Your task to perform on an android device: Show me the alarms in the clock app Image 0: 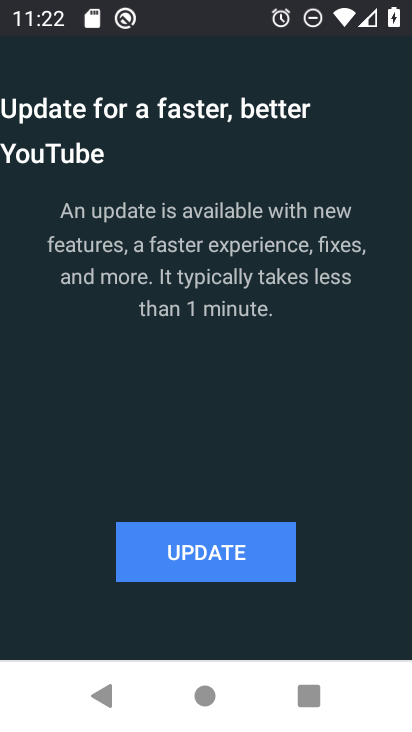
Step 0: press home button
Your task to perform on an android device: Show me the alarms in the clock app Image 1: 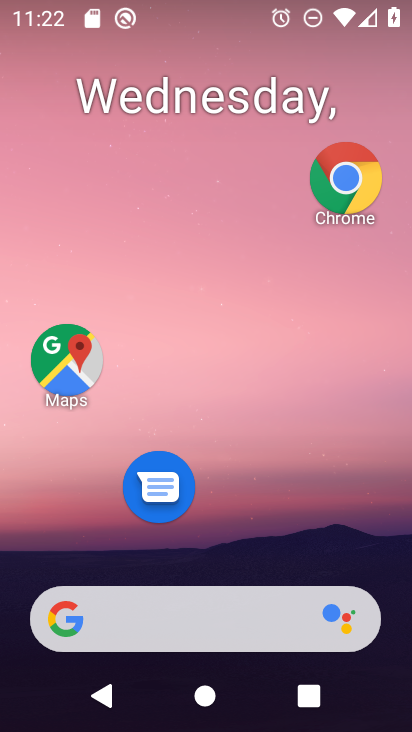
Step 1: drag from (240, 518) to (297, 150)
Your task to perform on an android device: Show me the alarms in the clock app Image 2: 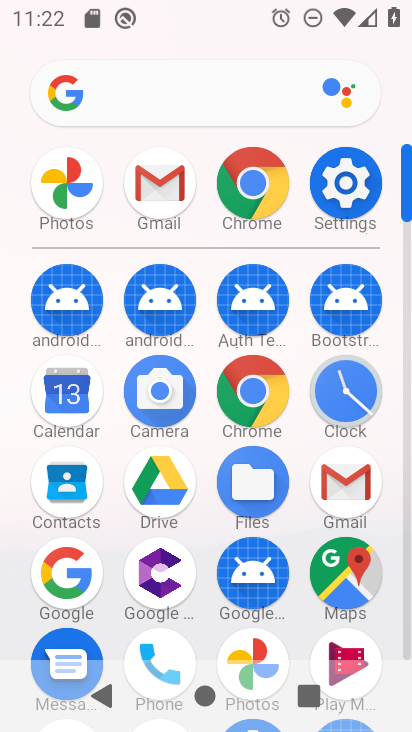
Step 2: click (344, 403)
Your task to perform on an android device: Show me the alarms in the clock app Image 3: 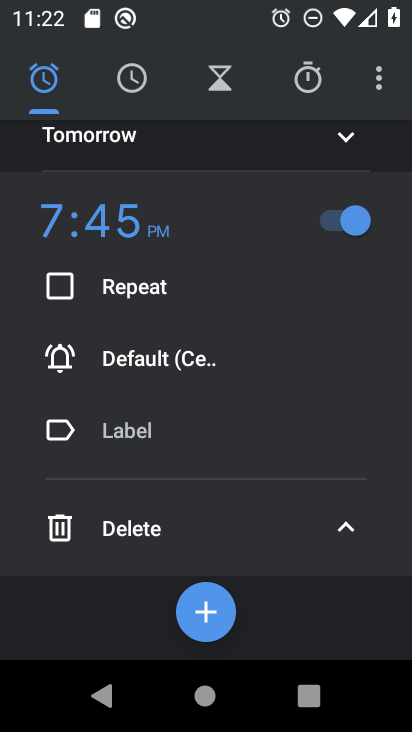
Step 3: click (59, 77)
Your task to perform on an android device: Show me the alarms in the clock app Image 4: 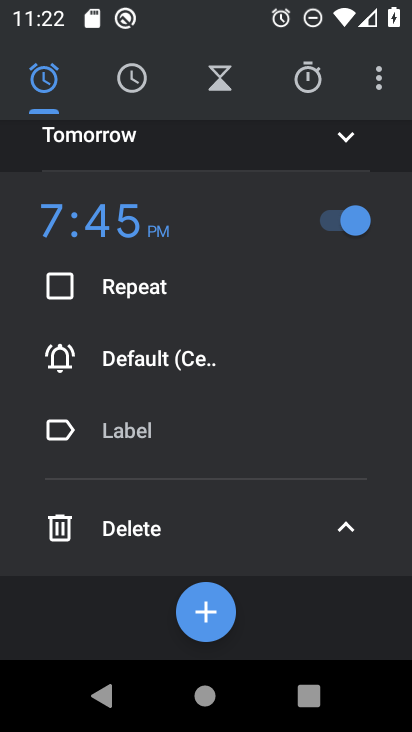
Step 4: task complete